Your task to perform on an android device: turn on wifi Image 0: 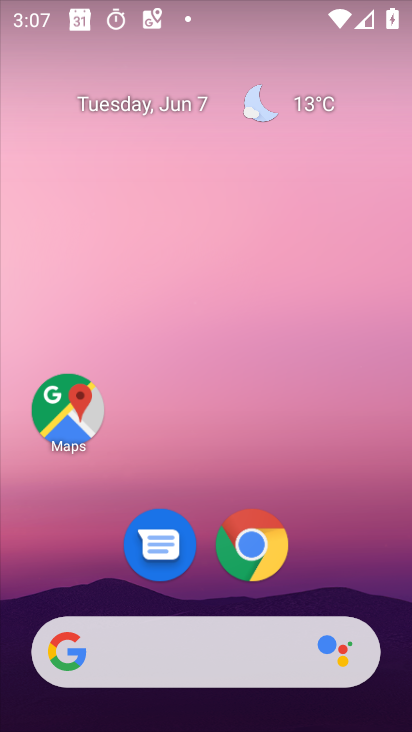
Step 0: drag from (326, 561) to (262, 21)
Your task to perform on an android device: turn on wifi Image 1: 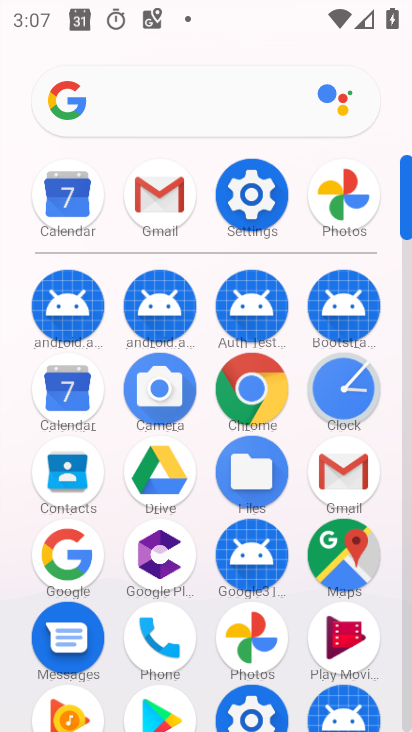
Step 1: click (254, 204)
Your task to perform on an android device: turn on wifi Image 2: 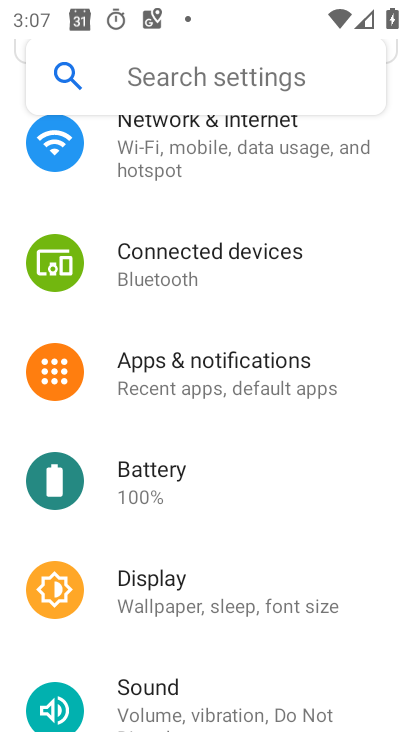
Step 2: click (234, 171)
Your task to perform on an android device: turn on wifi Image 3: 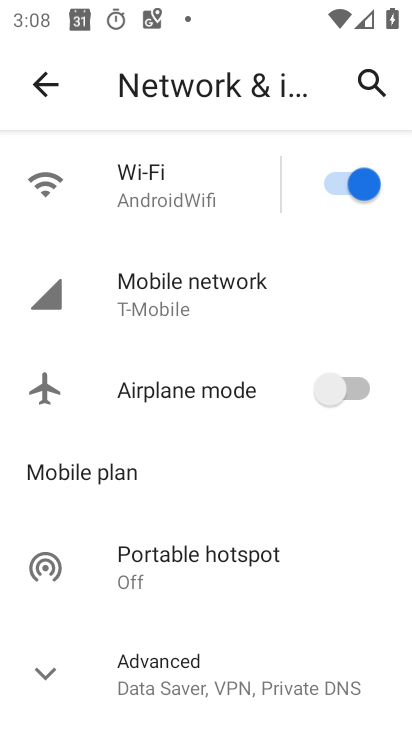
Step 3: task complete